Your task to perform on an android device: Go to Wikipedia Image 0: 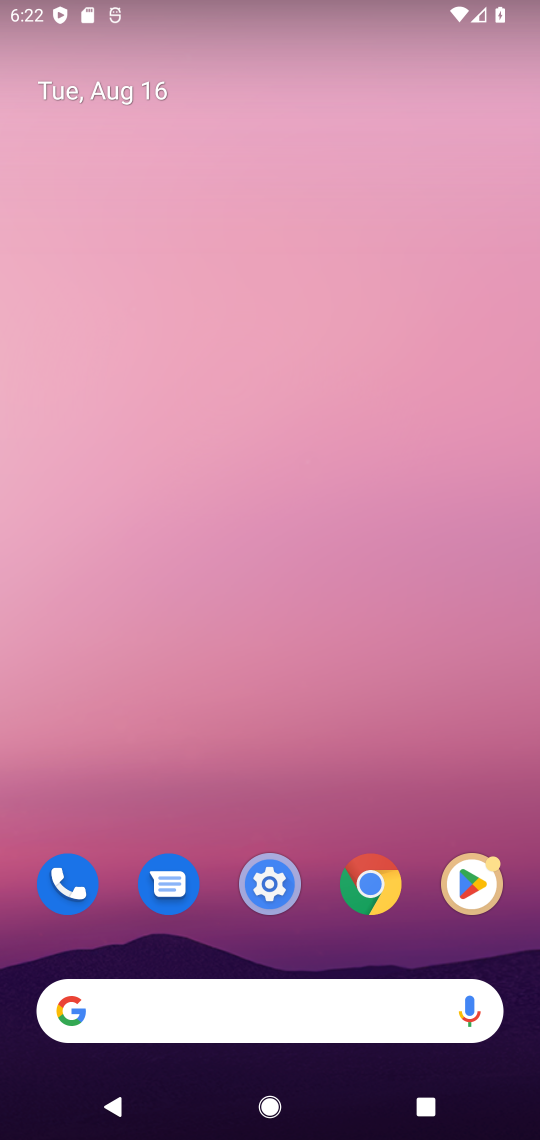
Step 0: press home button
Your task to perform on an android device: Go to Wikipedia Image 1: 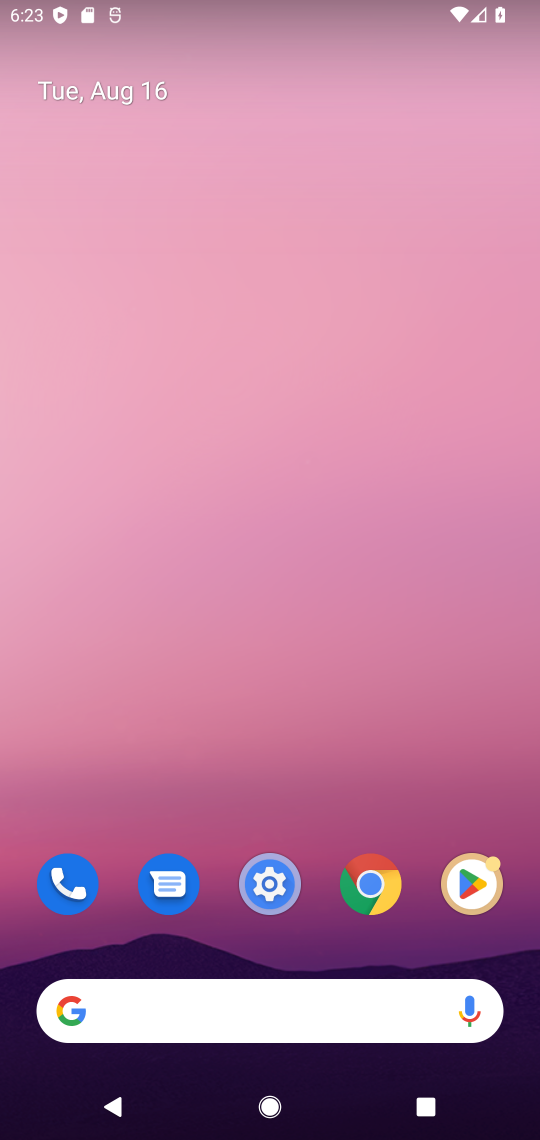
Step 1: click (79, 1006)
Your task to perform on an android device: Go to Wikipedia Image 2: 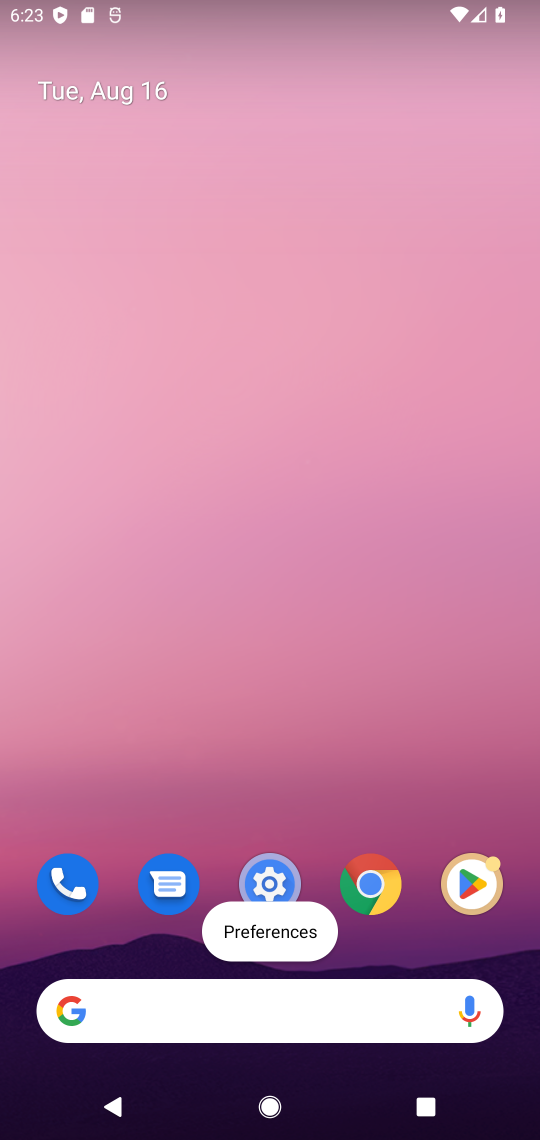
Step 2: click (83, 1005)
Your task to perform on an android device: Go to Wikipedia Image 3: 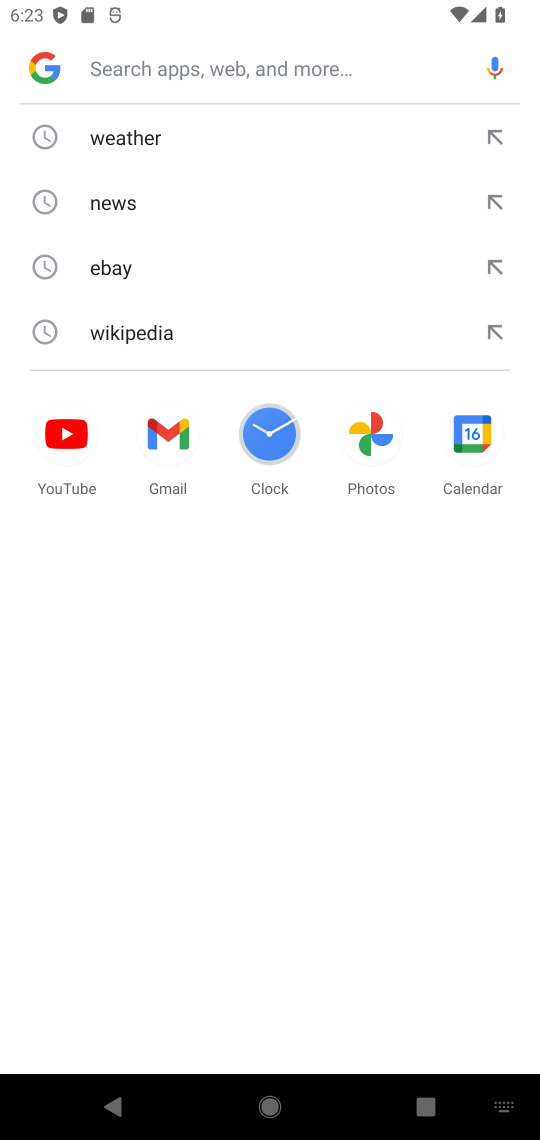
Step 3: press enter
Your task to perform on an android device: Go to Wikipedia Image 4: 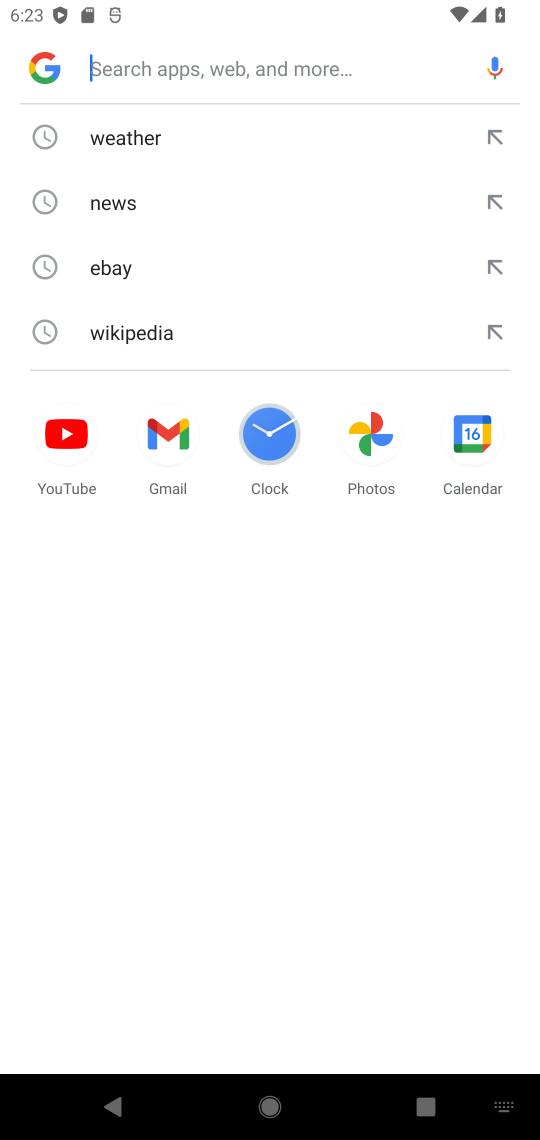
Step 4: type " Wikipedia"
Your task to perform on an android device: Go to Wikipedia Image 5: 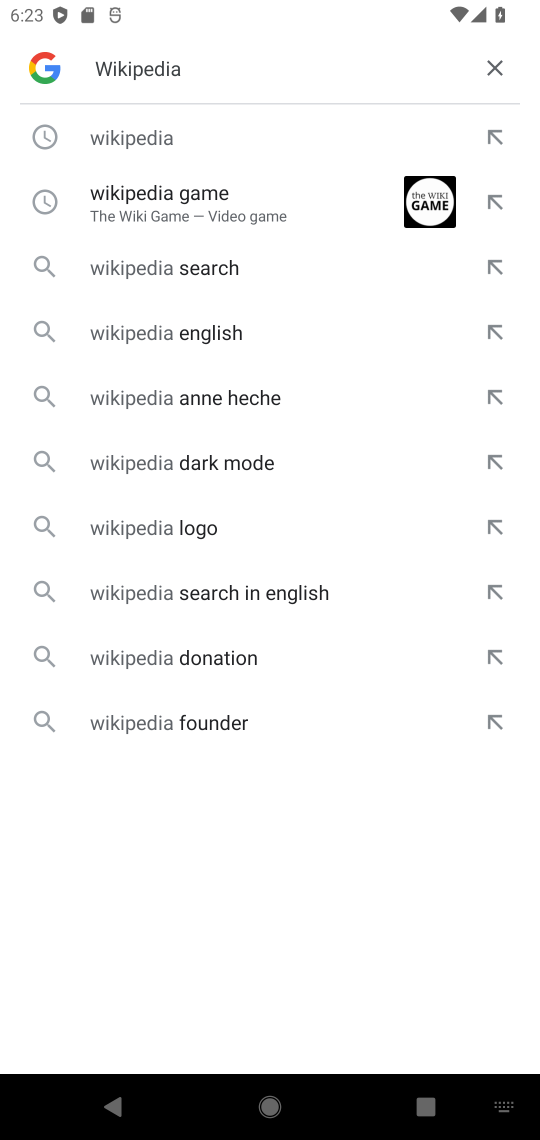
Step 5: press enter
Your task to perform on an android device: Go to Wikipedia Image 6: 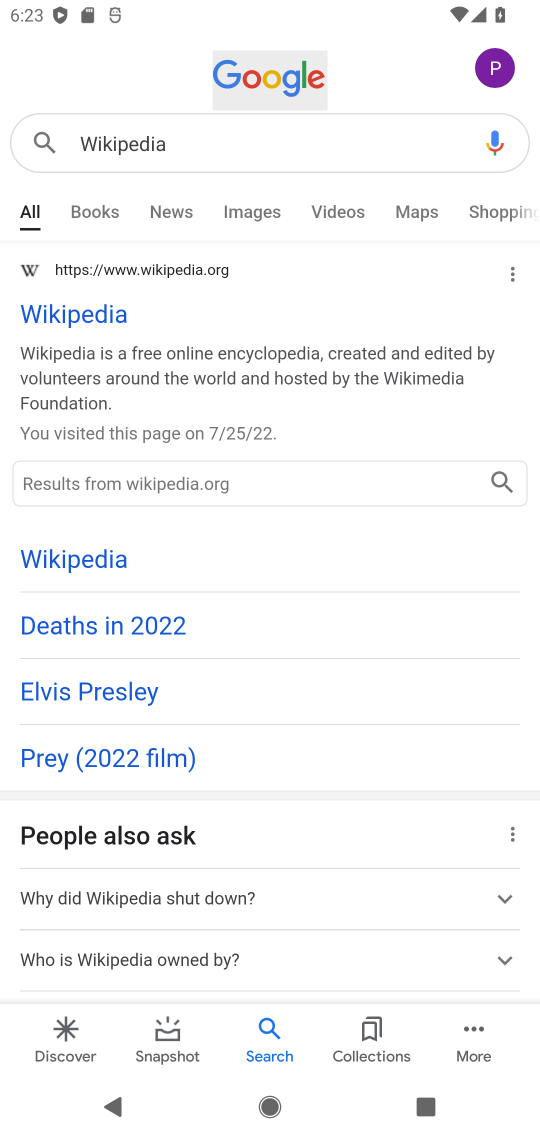
Step 6: click (54, 321)
Your task to perform on an android device: Go to Wikipedia Image 7: 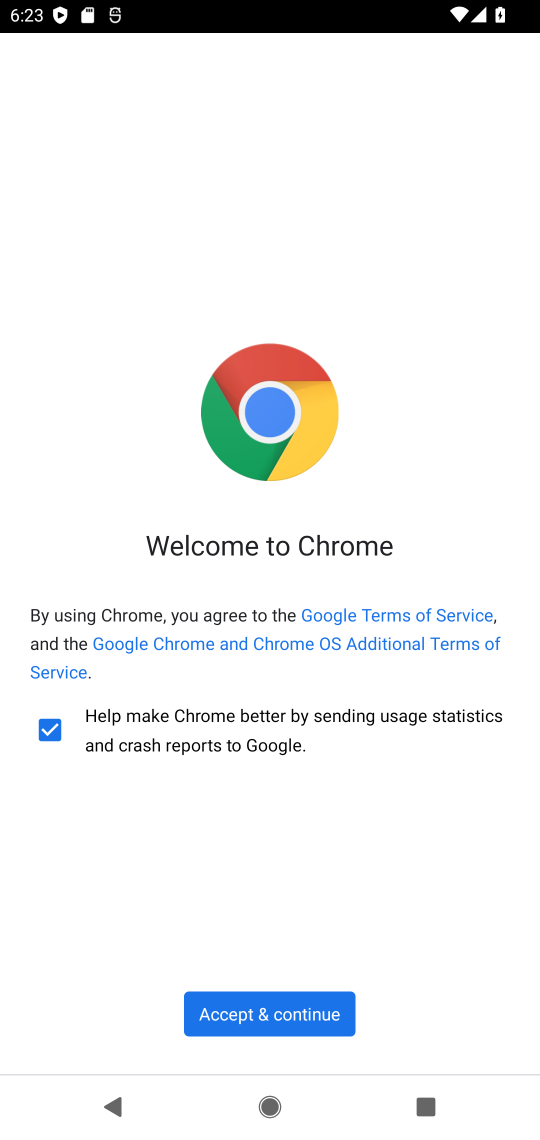
Step 7: click (244, 1026)
Your task to perform on an android device: Go to Wikipedia Image 8: 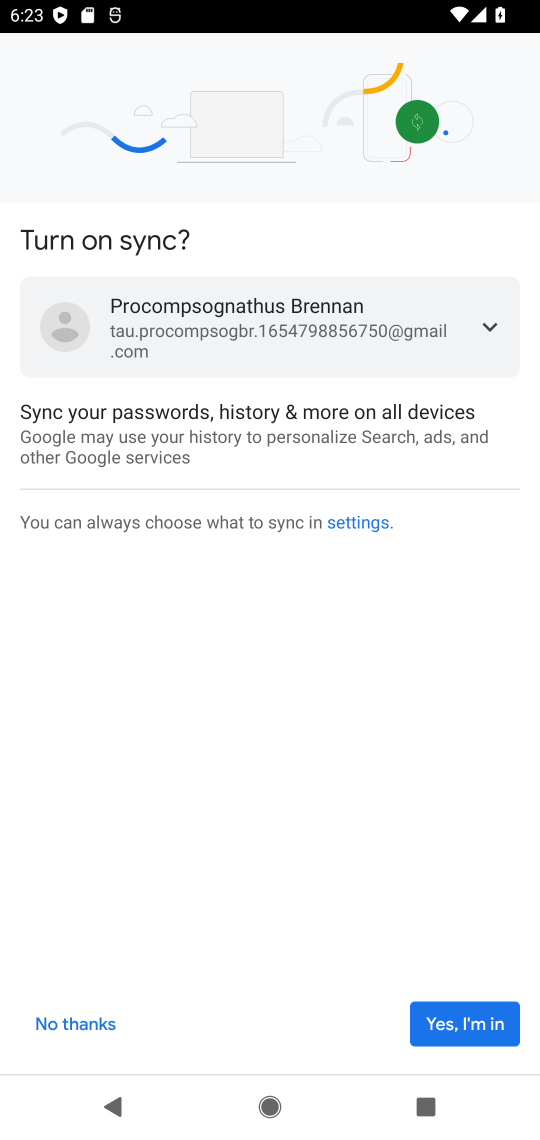
Step 8: click (496, 1040)
Your task to perform on an android device: Go to Wikipedia Image 9: 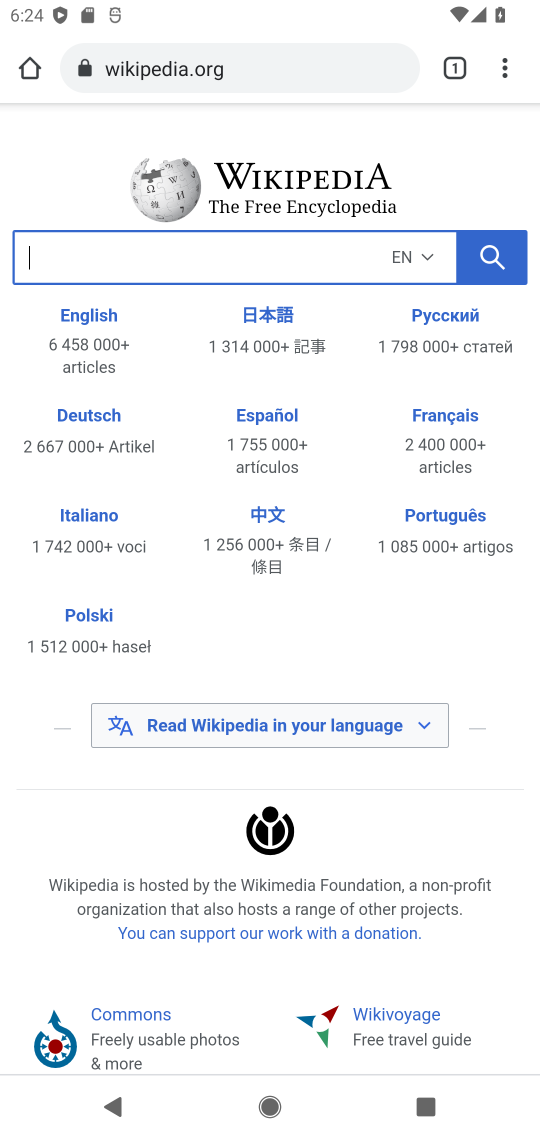
Step 9: task complete